Your task to perform on an android device: turn off improve location accuracy Image 0: 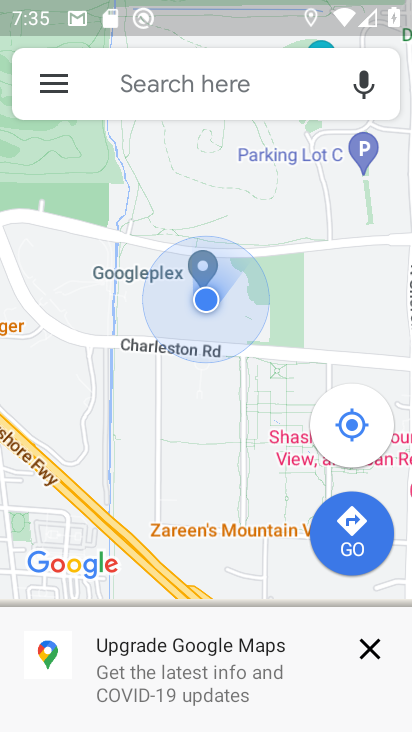
Step 0: press home button
Your task to perform on an android device: turn off improve location accuracy Image 1: 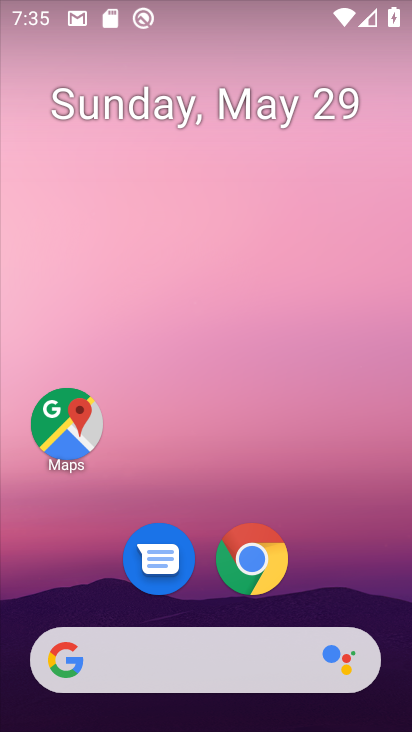
Step 1: drag from (373, 589) to (368, 227)
Your task to perform on an android device: turn off improve location accuracy Image 2: 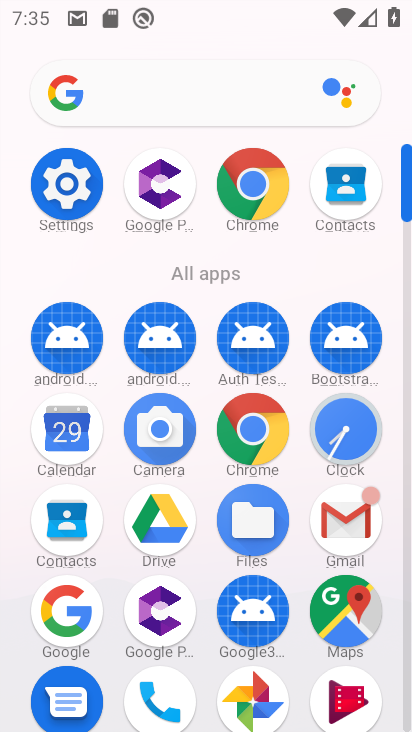
Step 2: click (73, 209)
Your task to perform on an android device: turn off improve location accuracy Image 3: 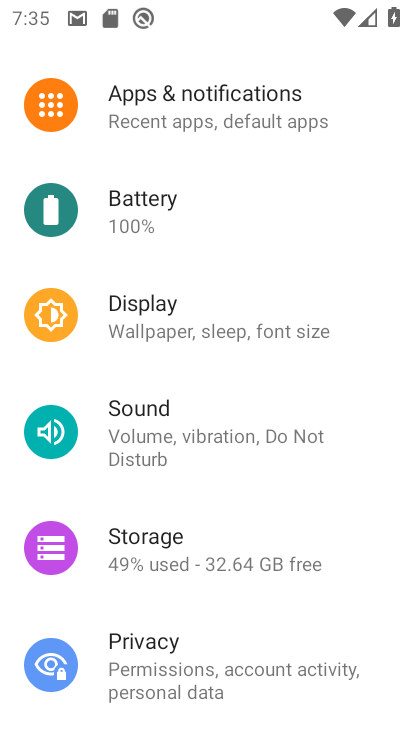
Step 3: drag from (348, 190) to (363, 266)
Your task to perform on an android device: turn off improve location accuracy Image 4: 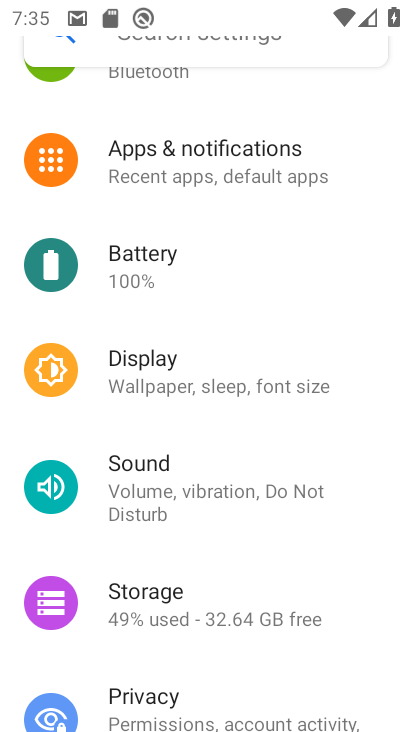
Step 4: drag from (352, 173) to (357, 294)
Your task to perform on an android device: turn off improve location accuracy Image 5: 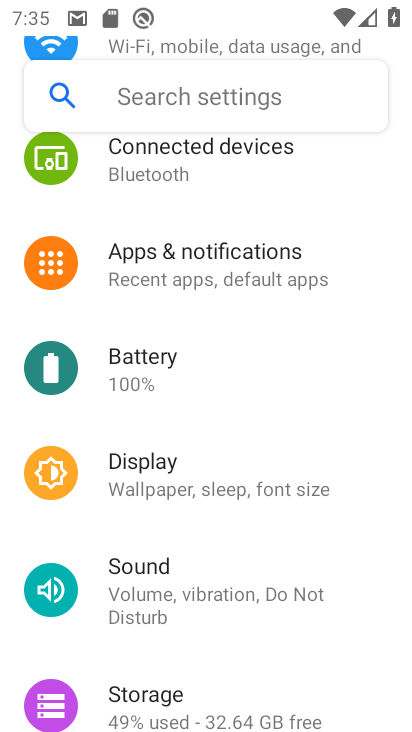
Step 5: drag from (363, 161) to (369, 303)
Your task to perform on an android device: turn off improve location accuracy Image 6: 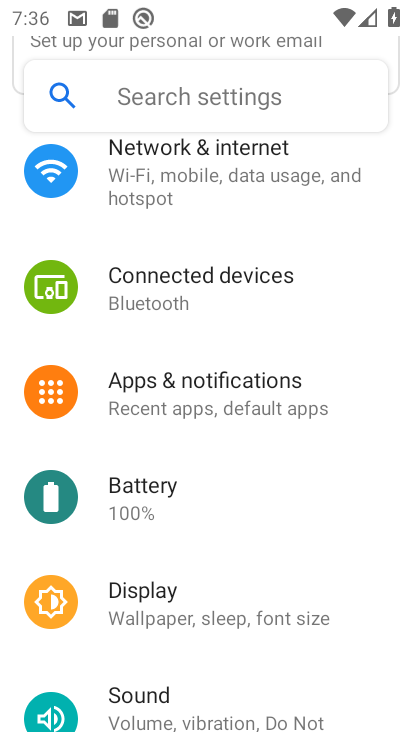
Step 6: drag from (379, 162) to (365, 371)
Your task to perform on an android device: turn off improve location accuracy Image 7: 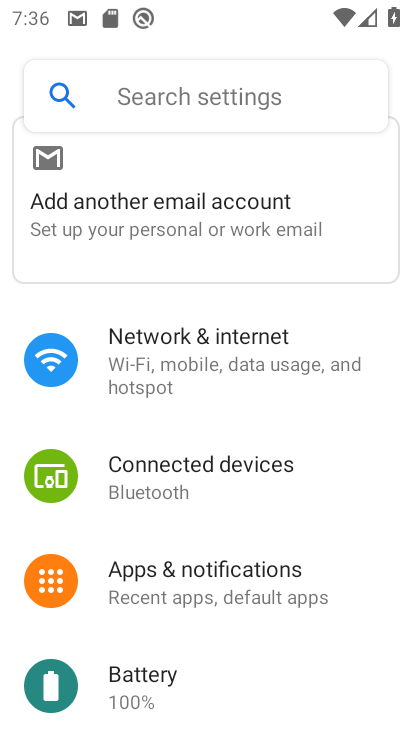
Step 7: drag from (357, 443) to (381, 331)
Your task to perform on an android device: turn off improve location accuracy Image 8: 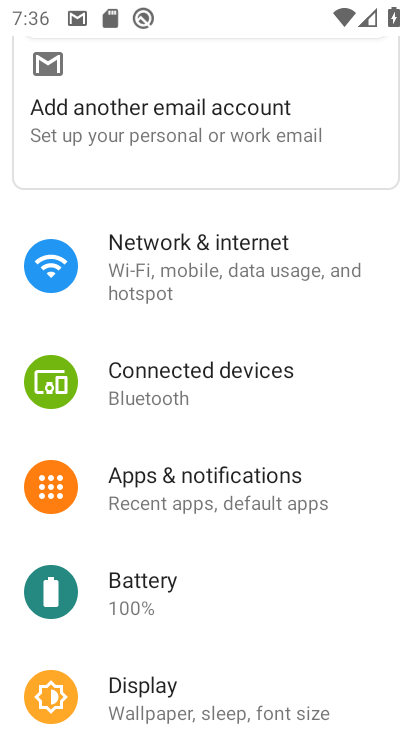
Step 8: drag from (364, 452) to (364, 327)
Your task to perform on an android device: turn off improve location accuracy Image 9: 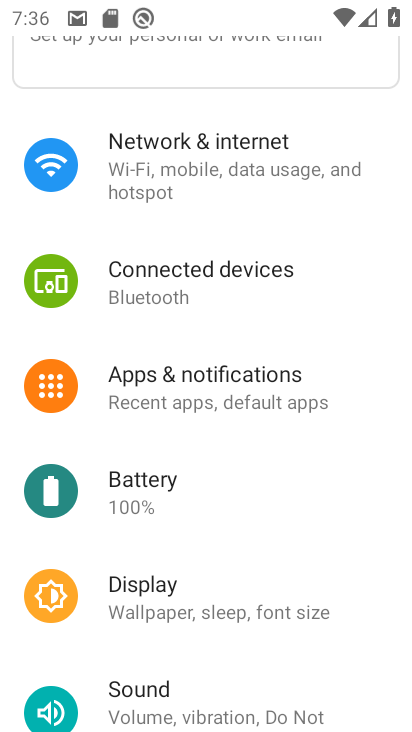
Step 9: drag from (357, 465) to (364, 365)
Your task to perform on an android device: turn off improve location accuracy Image 10: 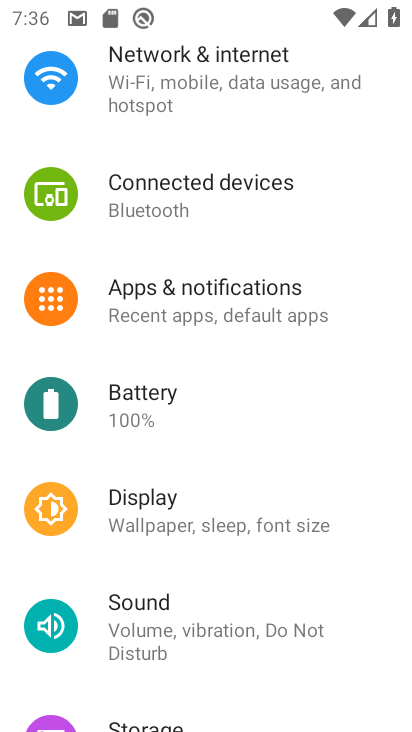
Step 10: drag from (374, 537) to (372, 439)
Your task to perform on an android device: turn off improve location accuracy Image 11: 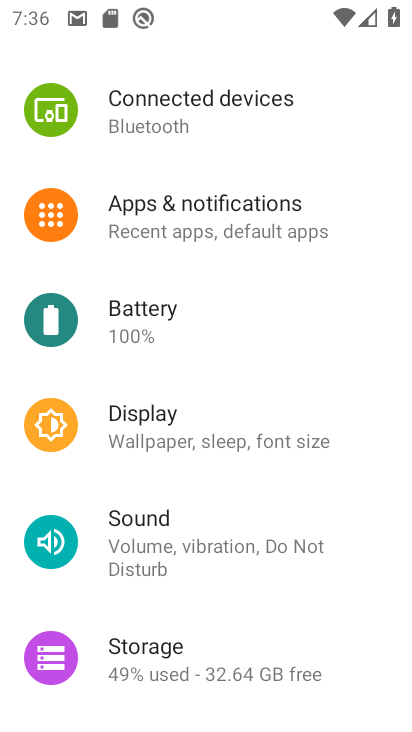
Step 11: drag from (365, 522) to (366, 428)
Your task to perform on an android device: turn off improve location accuracy Image 12: 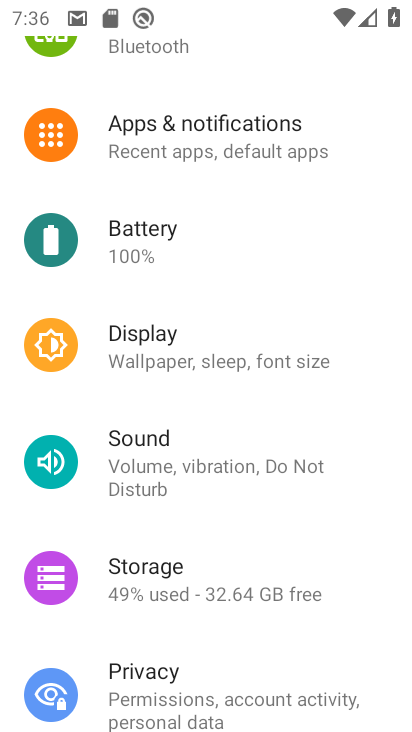
Step 12: drag from (361, 537) to (348, 421)
Your task to perform on an android device: turn off improve location accuracy Image 13: 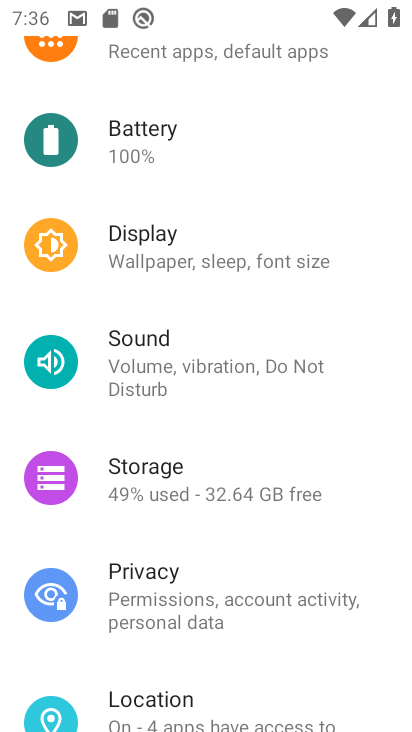
Step 13: drag from (362, 551) to (365, 442)
Your task to perform on an android device: turn off improve location accuracy Image 14: 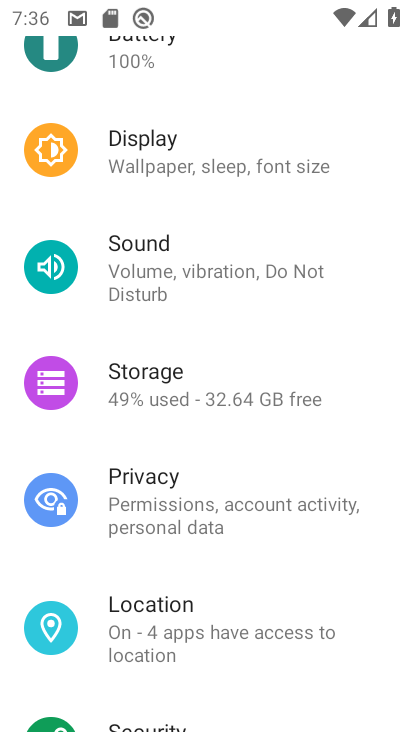
Step 14: drag from (350, 576) to (355, 443)
Your task to perform on an android device: turn off improve location accuracy Image 15: 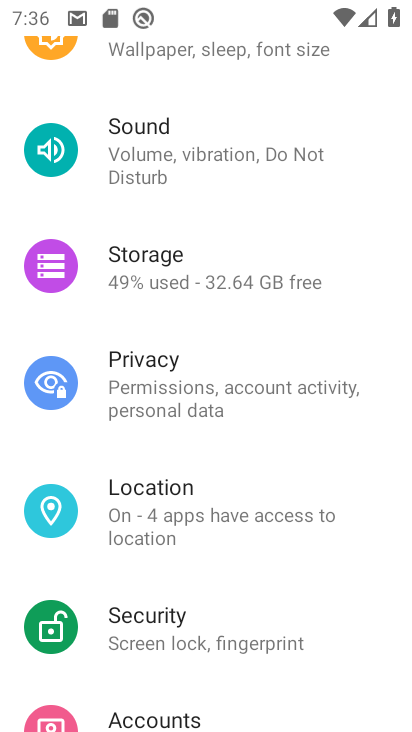
Step 15: drag from (348, 607) to (333, 424)
Your task to perform on an android device: turn off improve location accuracy Image 16: 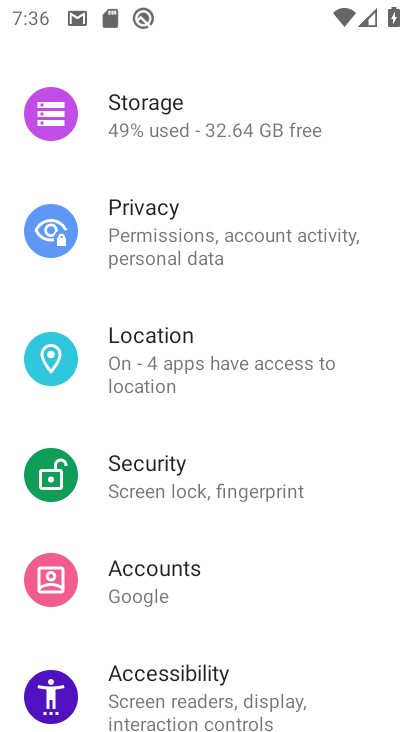
Step 16: click (278, 380)
Your task to perform on an android device: turn off improve location accuracy Image 17: 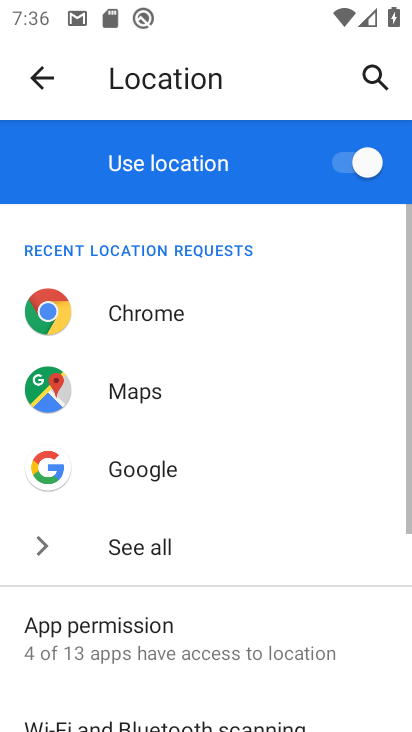
Step 17: drag from (300, 550) to (339, 345)
Your task to perform on an android device: turn off improve location accuracy Image 18: 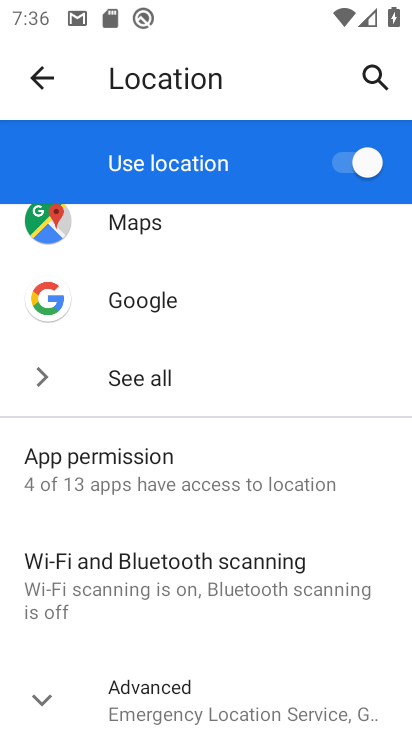
Step 18: drag from (337, 608) to (374, 401)
Your task to perform on an android device: turn off improve location accuracy Image 19: 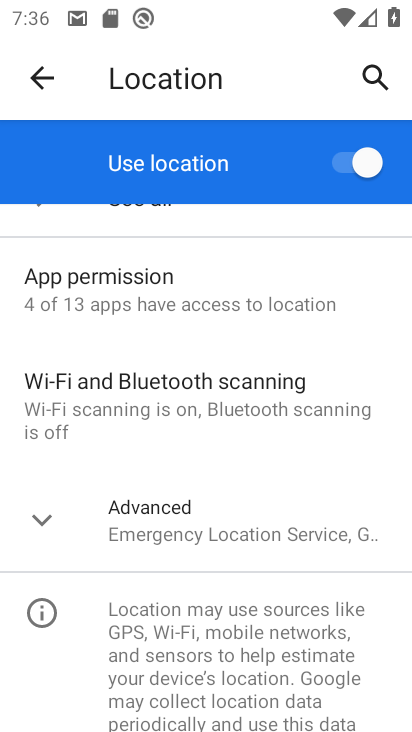
Step 19: drag from (296, 585) to (298, 355)
Your task to perform on an android device: turn off improve location accuracy Image 20: 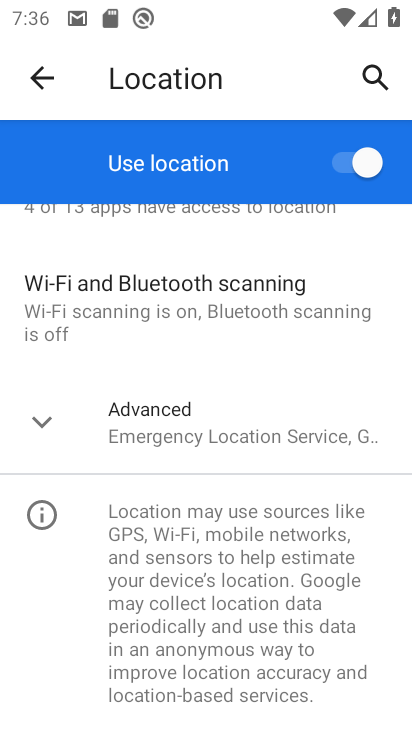
Step 20: drag from (346, 241) to (351, 332)
Your task to perform on an android device: turn off improve location accuracy Image 21: 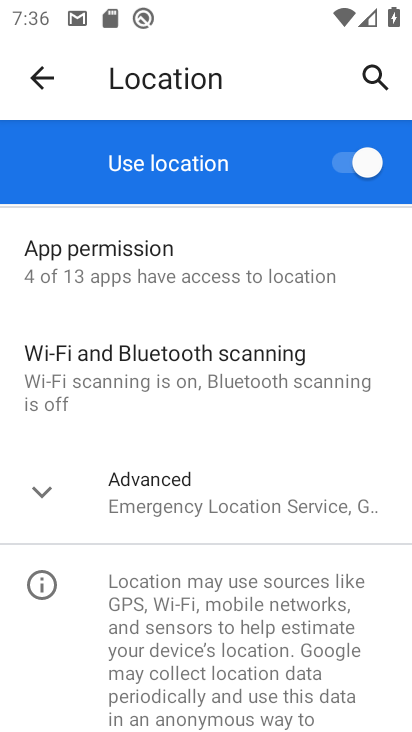
Step 21: click (340, 503)
Your task to perform on an android device: turn off improve location accuracy Image 22: 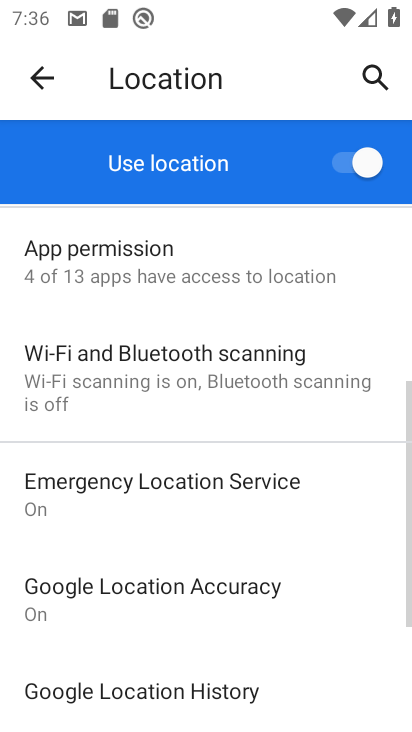
Step 22: drag from (315, 615) to (331, 511)
Your task to perform on an android device: turn off improve location accuracy Image 23: 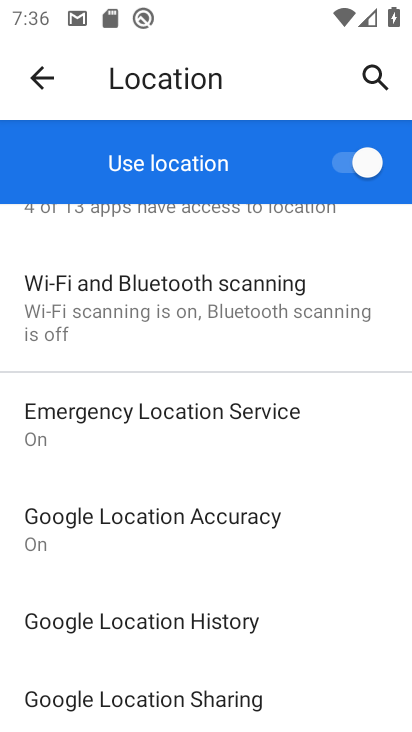
Step 23: click (252, 531)
Your task to perform on an android device: turn off improve location accuracy Image 24: 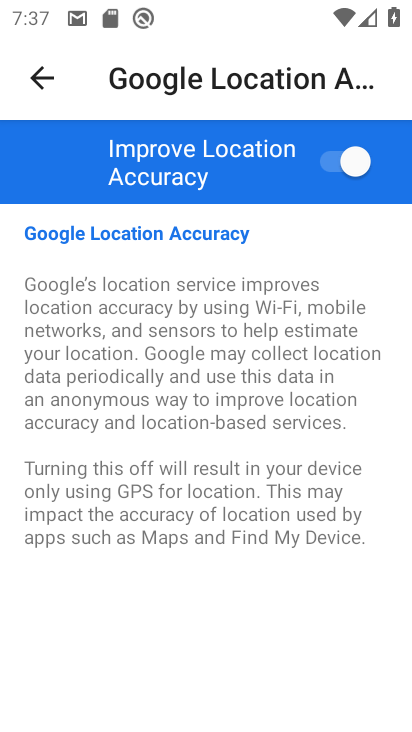
Step 24: click (352, 178)
Your task to perform on an android device: turn off improve location accuracy Image 25: 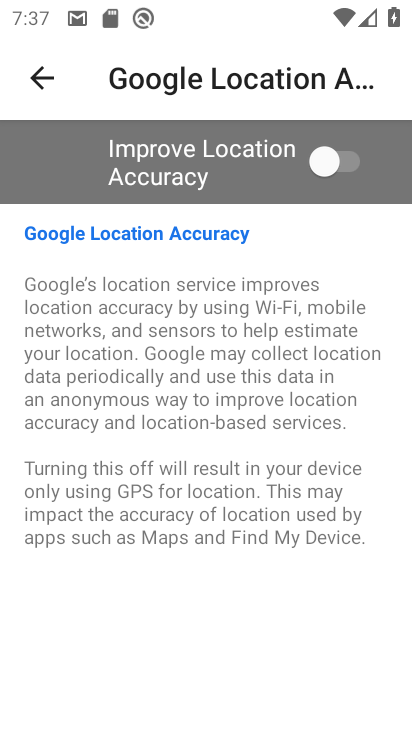
Step 25: task complete